Your task to perform on an android device: open a new tab in the chrome app Image 0: 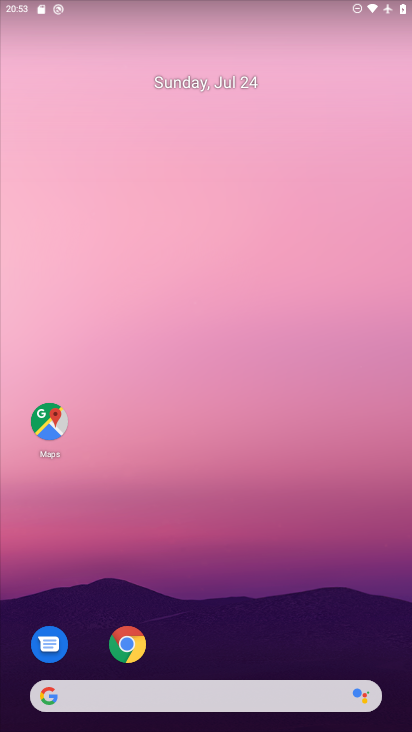
Step 0: click (127, 645)
Your task to perform on an android device: open a new tab in the chrome app Image 1: 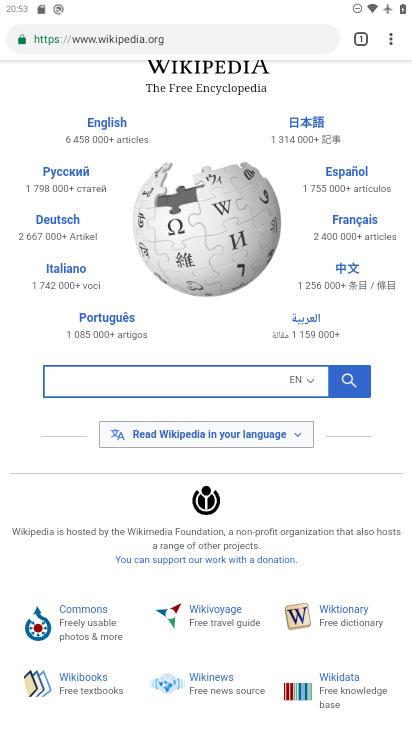
Step 1: click (388, 44)
Your task to perform on an android device: open a new tab in the chrome app Image 2: 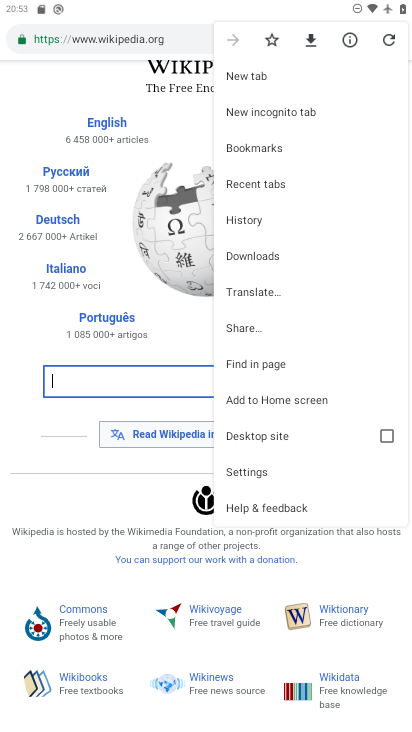
Step 2: click (245, 71)
Your task to perform on an android device: open a new tab in the chrome app Image 3: 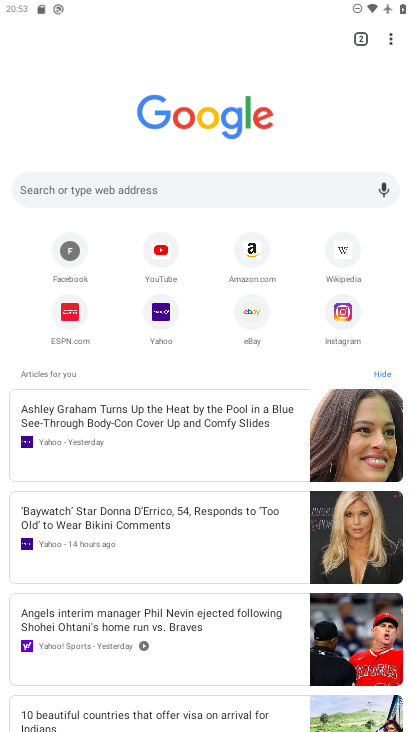
Step 3: task complete